Your task to perform on an android device: find snoozed emails in the gmail app Image 0: 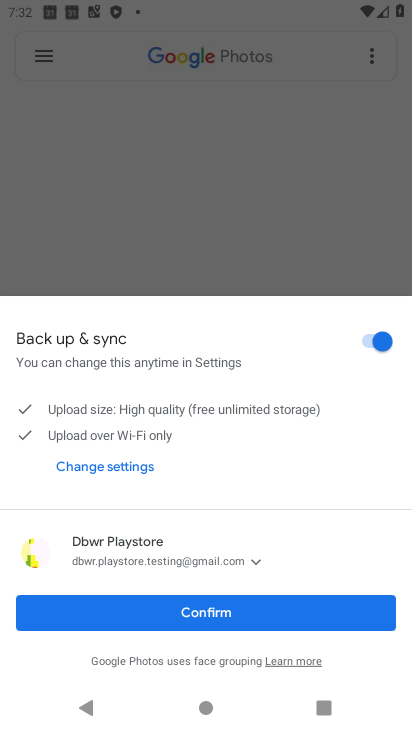
Step 0: click (227, 612)
Your task to perform on an android device: find snoozed emails in the gmail app Image 1: 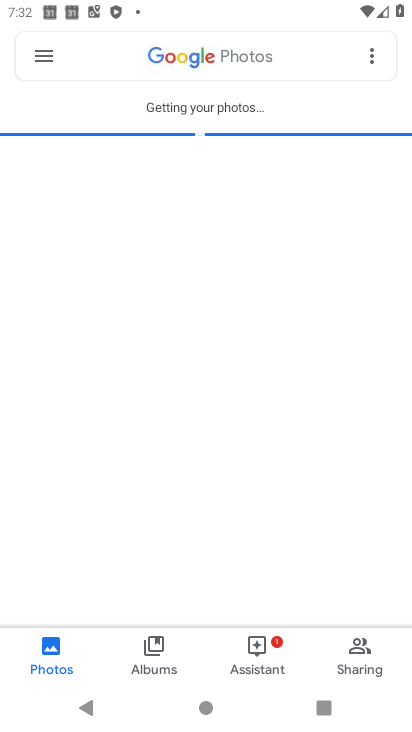
Step 1: press home button
Your task to perform on an android device: find snoozed emails in the gmail app Image 2: 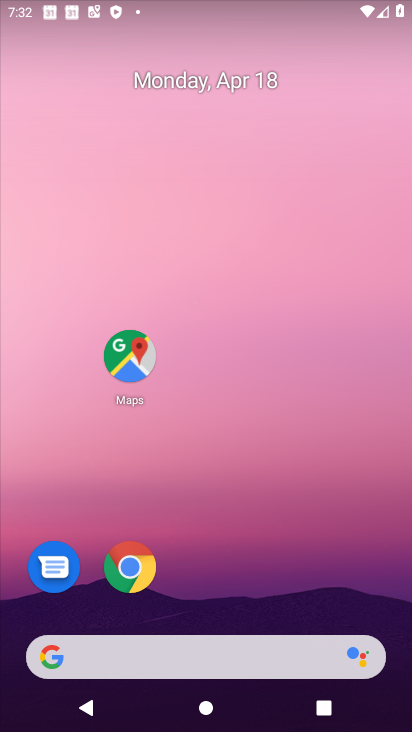
Step 2: drag from (273, 644) to (241, 302)
Your task to perform on an android device: find snoozed emails in the gmail app Image 3: 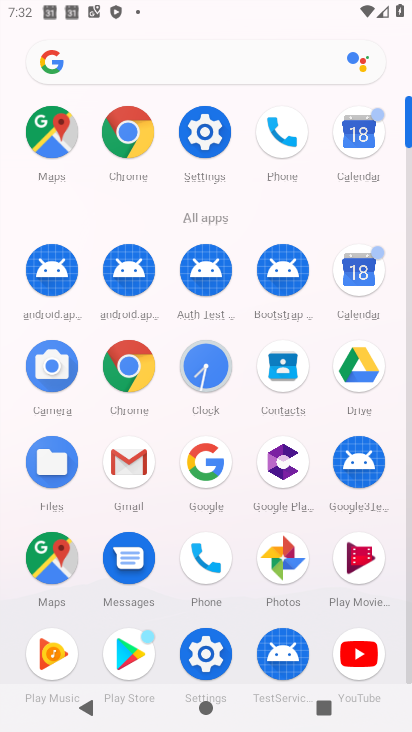
Step 3: click (145, 470)
Your task to perform on an android device: find snoozed emails in the gmail app Image 4: 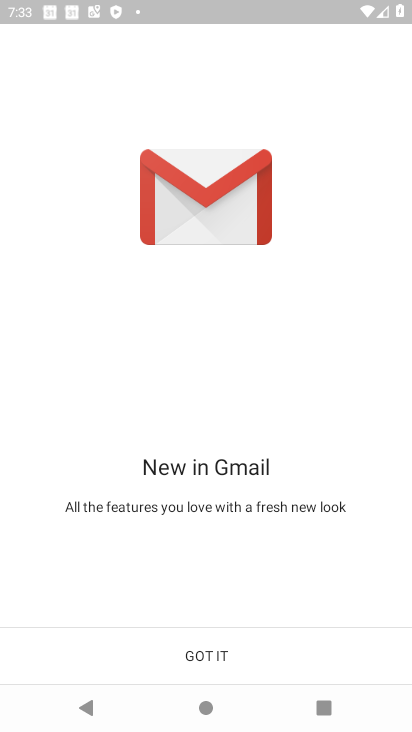
Step 4: click (221, 648)
Your task to perform on an android device: find snoozed emails in the gmail app Image 5: 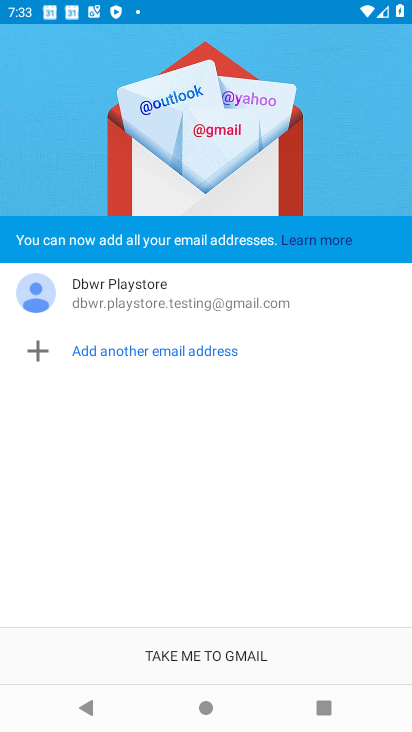
Step 5: click (218, 648)
Your task to perform on an android device: find snoozed emails in the gmail app Image 6: 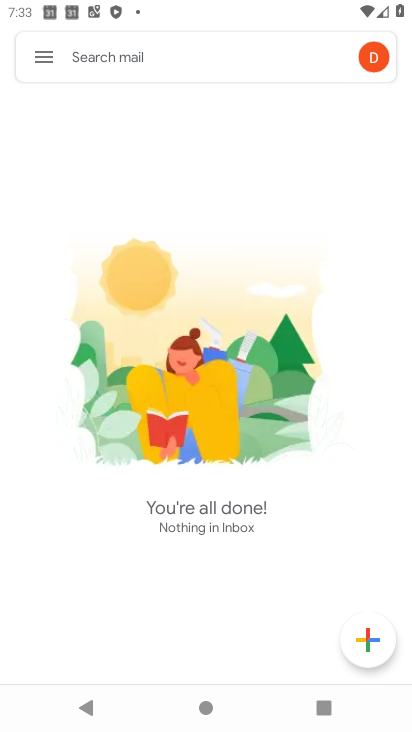
Step 6: click (35, 55)
Your task to perform on an android device: find snoozed emails in the gmail app Image 7: 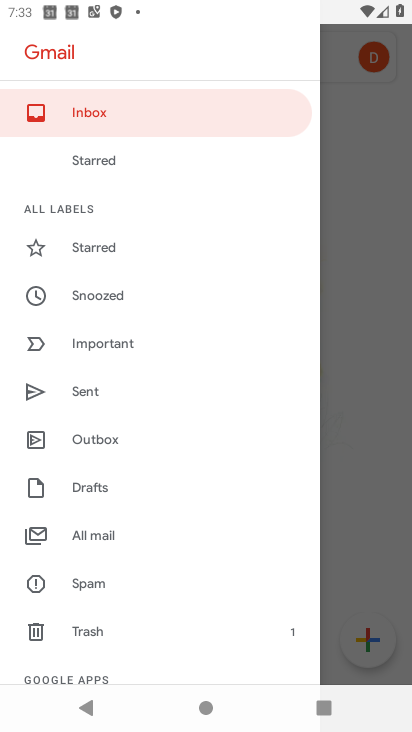
Step 7: click (112, 286)
Your task to perform on an android device: find snoozed emails in the gmail app Image 8: 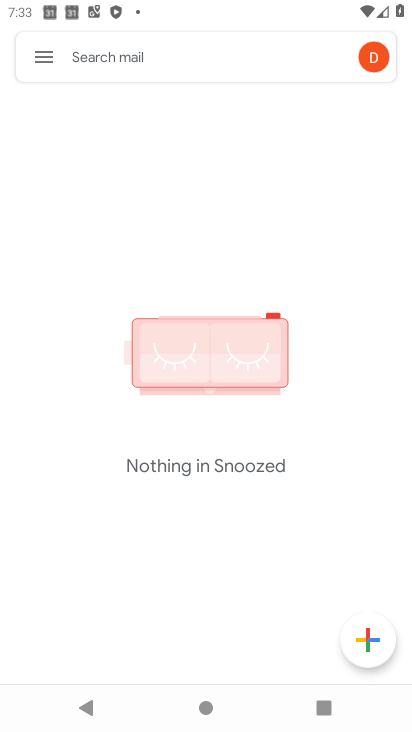
Step 8: task complete